Your task to perform on an android device: What's the news in Laos? Image 0: 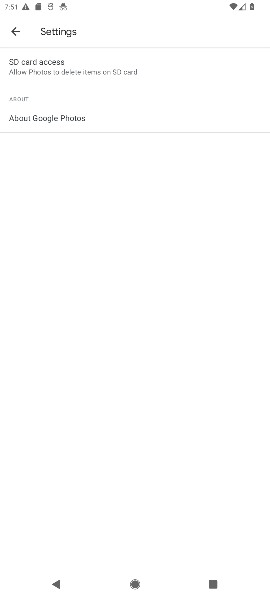
Step 0: press home button
Your task to perform on an android device: What's the news in Laos? Image 1: 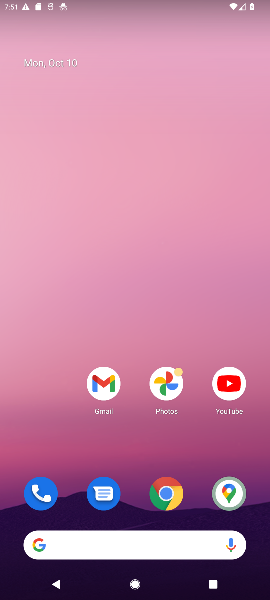
Step 1: drag from (150, 445) to (121, 118)
Your task to perform on an android device: What's the news in Laos? Image 2: 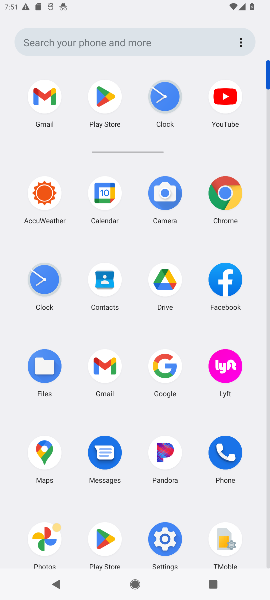
Step 2: click (105, 105)
Your task to perform on an android device: What's the news in Laos? Image 3: 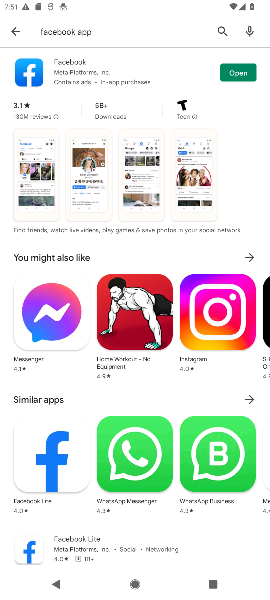
Step 3: click (18, 30)
Your task to perform on an android device: What's the news in Laos? Image 4: 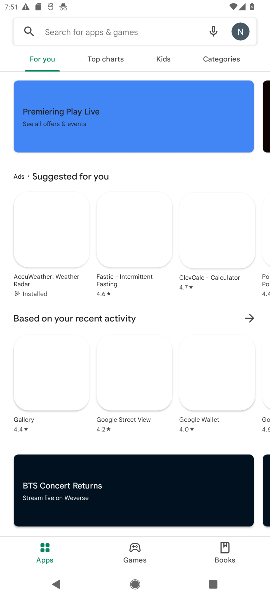
Step 4: click (18, 30)
Your task to perform on an android device: What's the news in Laos? Image 5: 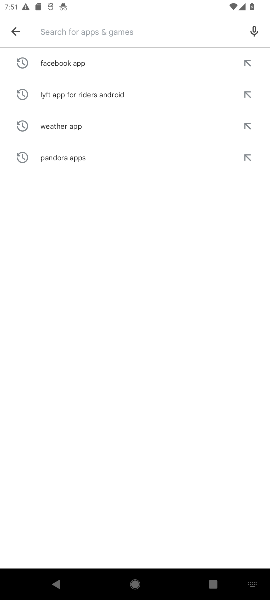
Step 5: click (92, 30)
Your task to perform on an android device: What's the news in Laos? Image 6: 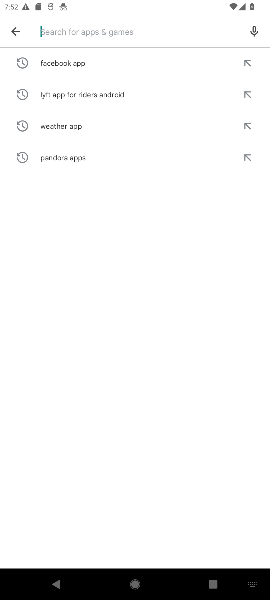
Step 6: type "What's the news in Laos"
Your task to perform on an android device: What's the news in Laos? Image 7: 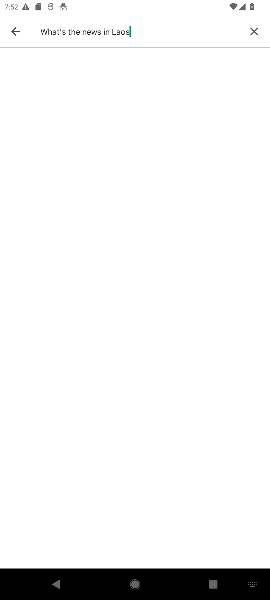
Step 7: click (10, 35)
Your task to perform on an android device: What's the news in Laos? Image 8: 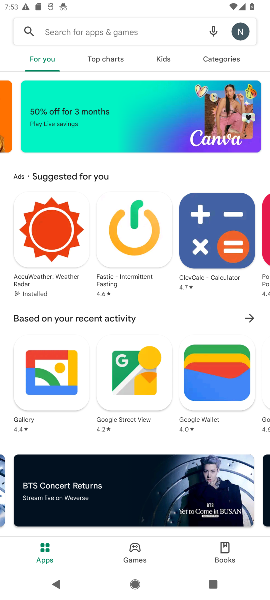
Step 8: type "What's the news in Laos?"
Your task to perform on an android device: What's the news in Laos? Image 9: 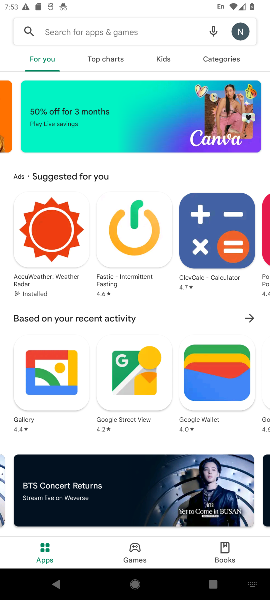
Step 9: task complete